Your task to perform on an android device: Open Reddit.com Image 0: 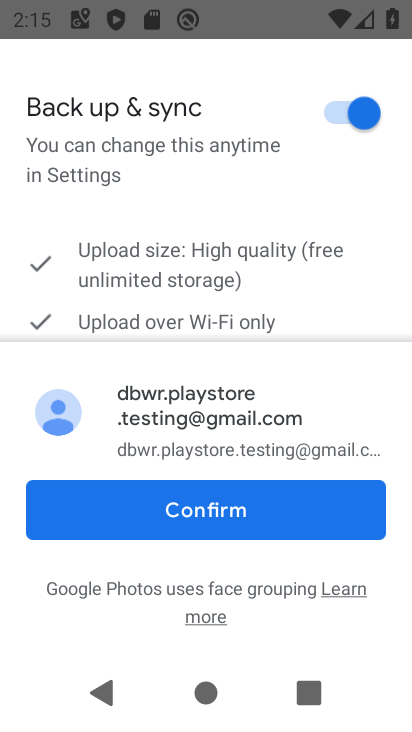
Step 0: press home button
Your task to perform on an android device: Open Reddit.com Image 1: 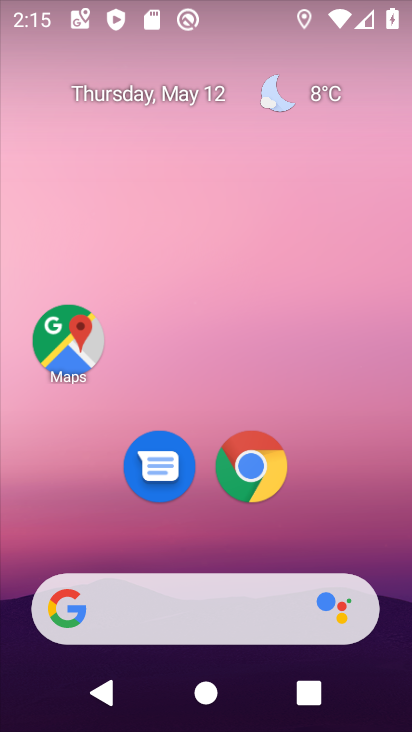
Step 1: click (254, 466)
Your task to perform on an android device: Open Reddit.com Image 2: 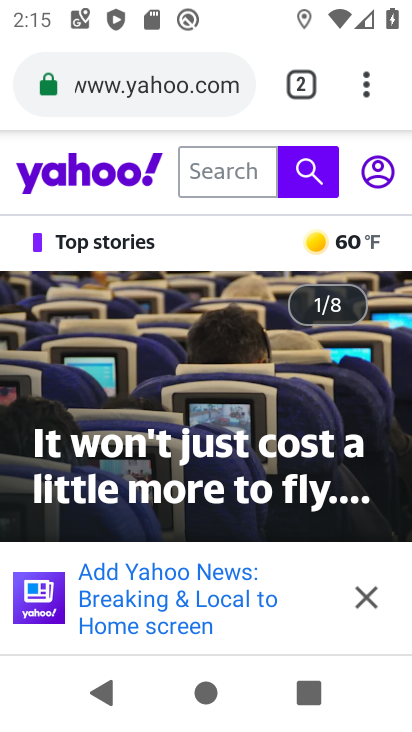
Step 2: click (303, 76)
Your task to perform on an android device: Open Reddit.com Image 3: 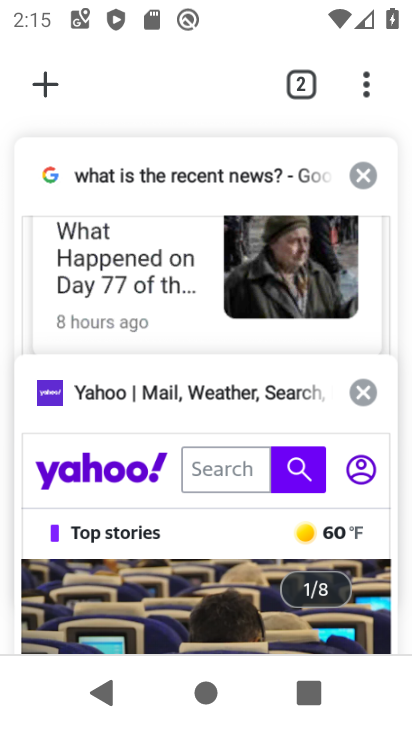
Step 3: click (44, 82)
Your task to perform on an android device: Open Reddit.com Image 4: 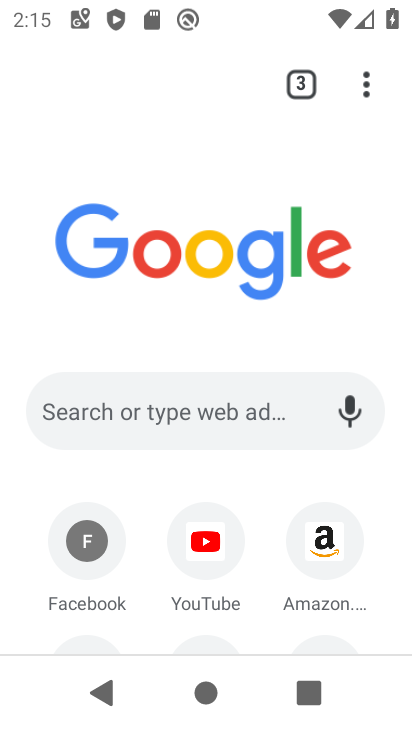
Step 4: click (114, 409)
Your task to perform on an android device: Open Reddit.com Image 5: 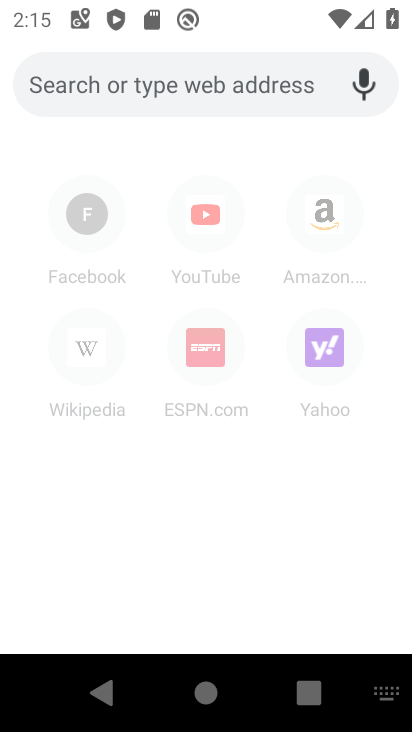
Step 5: type "reddit.com"
Your task to perform on an android device: Open Reddit.com Image 6: 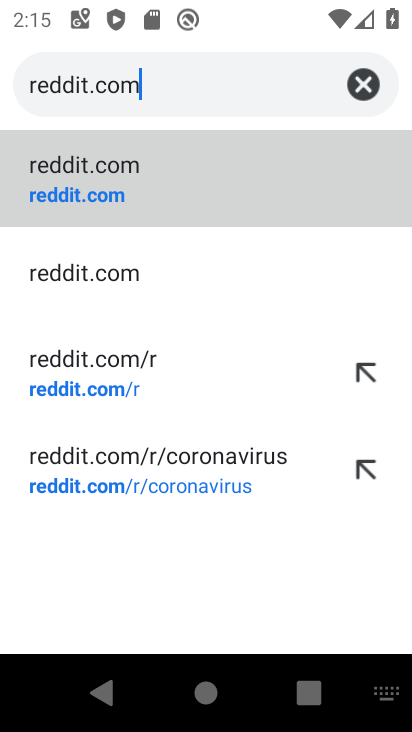
Step 6: click (103, 176)
Your task to perform on an android device: Open Reddit.com Image 7: 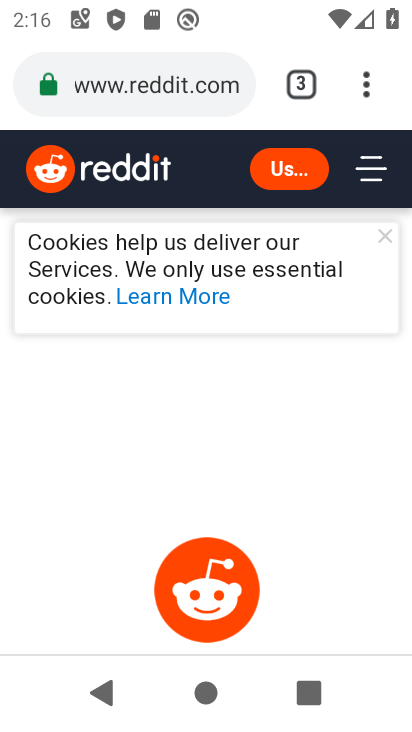
Step 7: task complete